Your task to perform on an android device: turn on data saver in the chrome app Image 0: 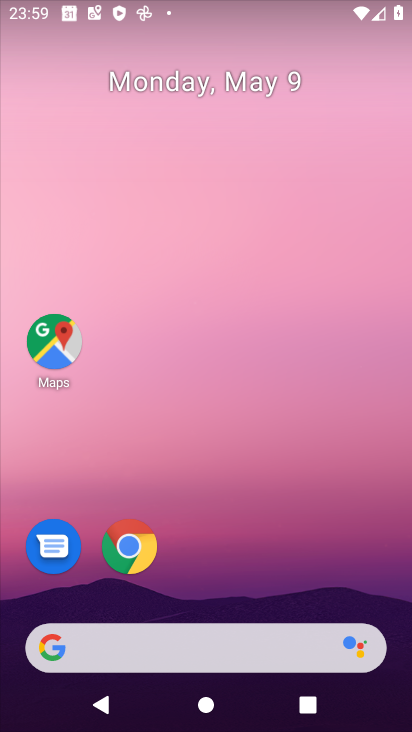
Step 0: click (142, 552)
Your task to perform on an android device: turn on data saver in the chrome app Image 1: 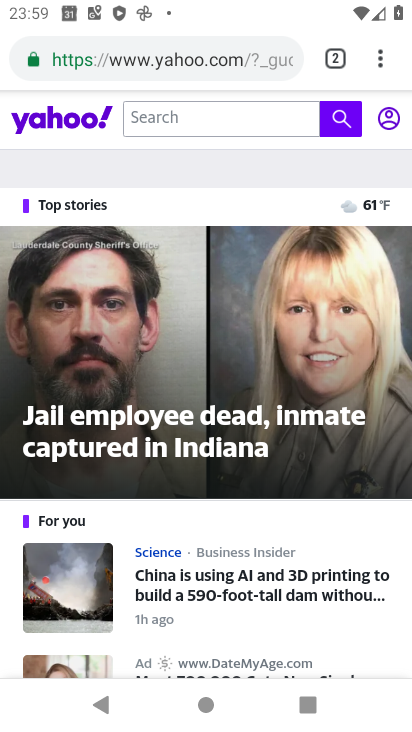
Step 1: click (381, 69)
Your task to perform on an android device: turn on data saver in the chrome app Image 2: 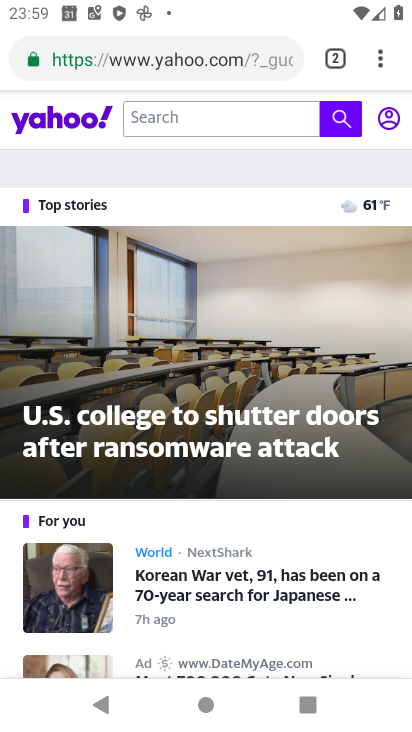
Step 2: click (376, 61)
Your task to perform on an android device: turn on data saver in the chrome app Image 3: 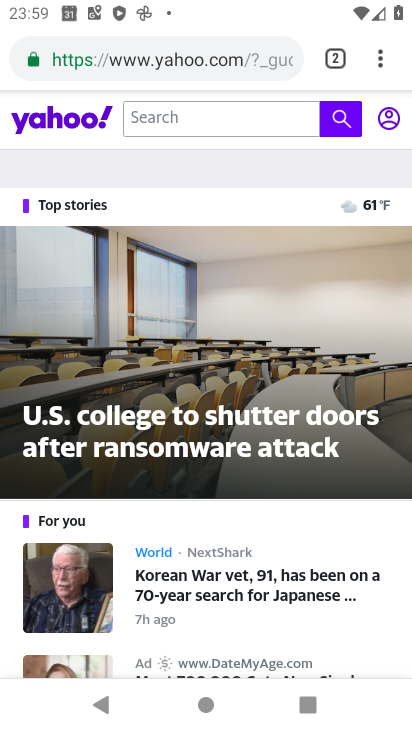
Step 3: click (377, 62)
Your task to perform on an android device: turn on data saver in the chrome app Image 4: 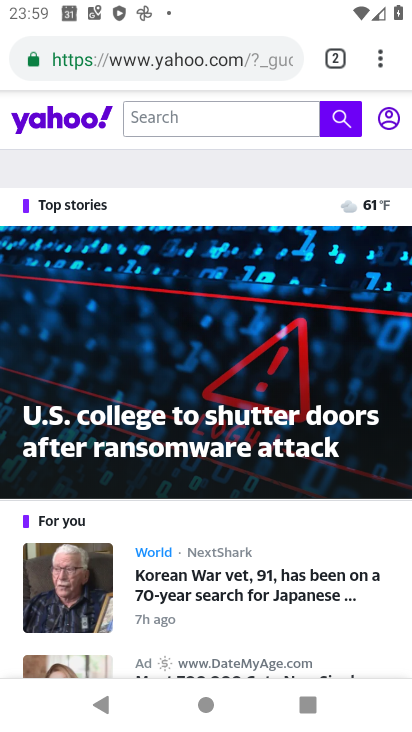
Step 4: click (376, 48)
Your task to perform on an android device: turn on data saver in the chrome app Image 5: 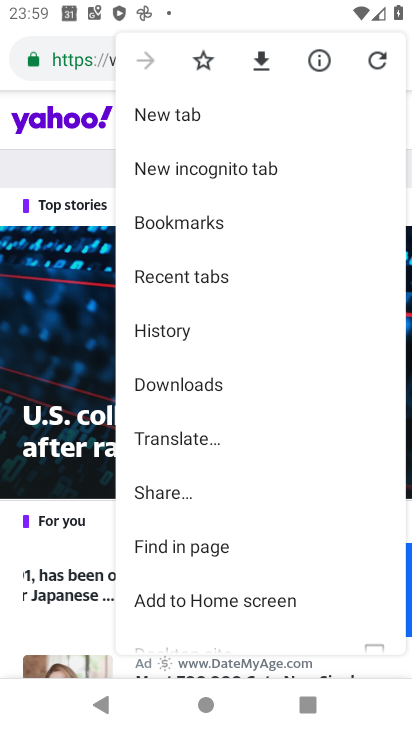
Step 5: drag from (287, 596) to (277, 158)
Your task to perform on an android device: turn on data saver in the chrome app Image 6: 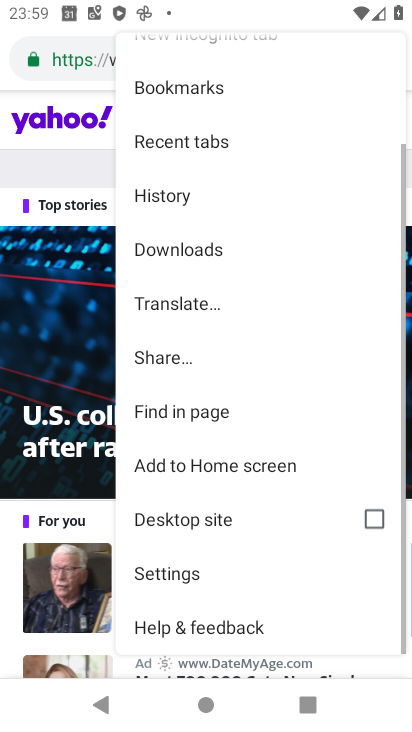
Step 6: click (183, 576)
Your task to perform on an android device: turn on data saver in the chrome app Image 7: 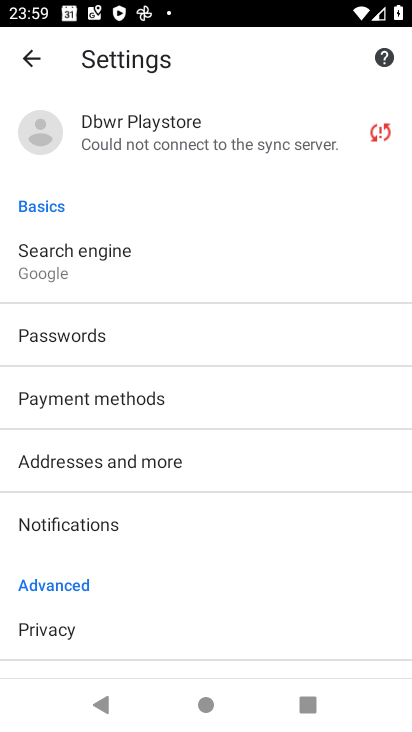
Step 7: drag from (186, 594) to (237, 225)
Your task to perform on an android device: turn on data saver in the chrome app Image 8: 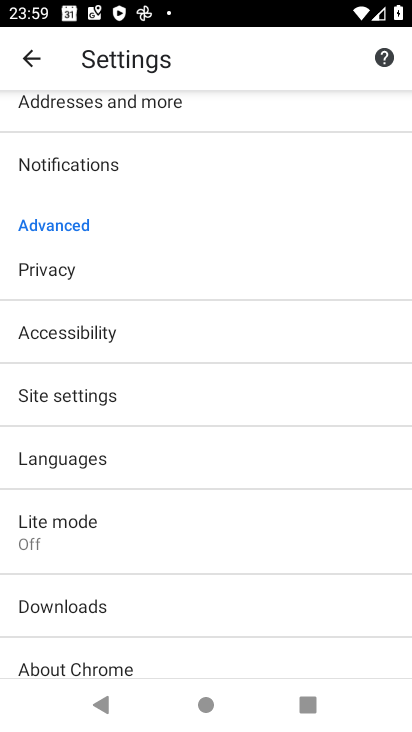
Step 8: click (59, 517)
Your task to perform on an android device: turn on data saver in the chrome app Image 9: 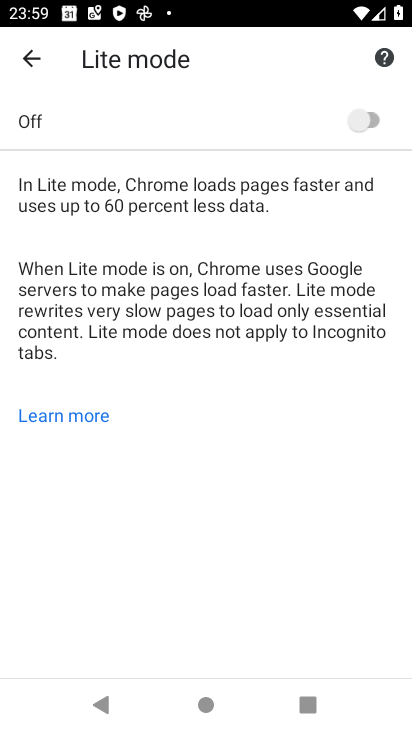
Step 9: click (365, 122)
Your task to perform on an android device: turn on data saver in the chrome app Image 10: 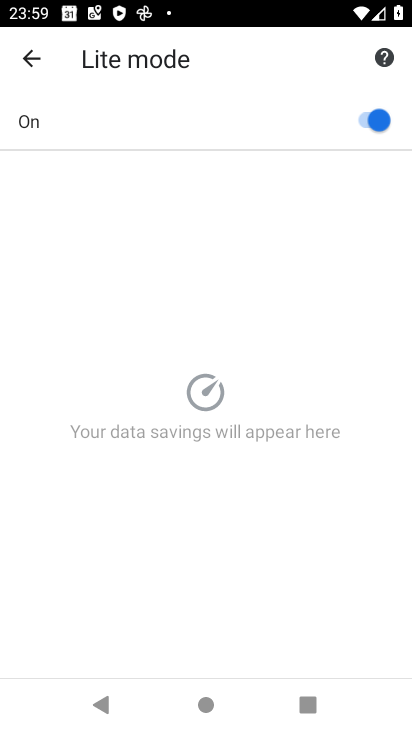
Step 10: task complete